Your task to perform on an android device: set an alarm Image 0: 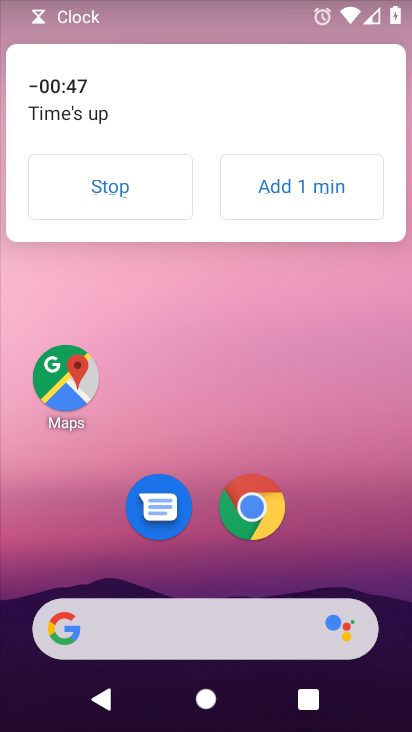
Step 0: drag from (227, 727) to (256, 0)
Your task to perform on an android device: set an alarm Image 1: 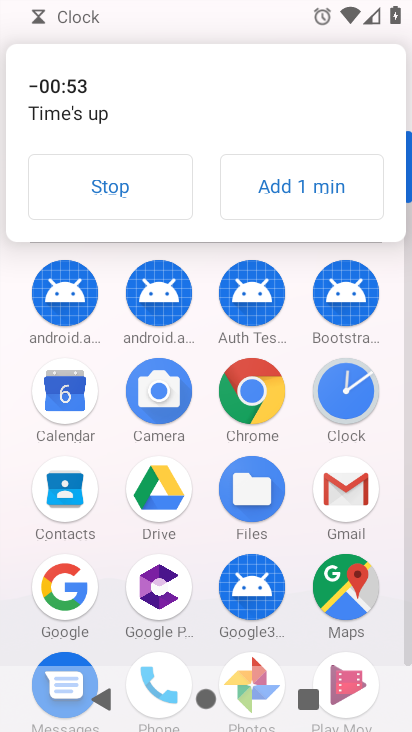
Step 1: click (352, 398)
Your task to perform on an android device: set an alarm Image 2: 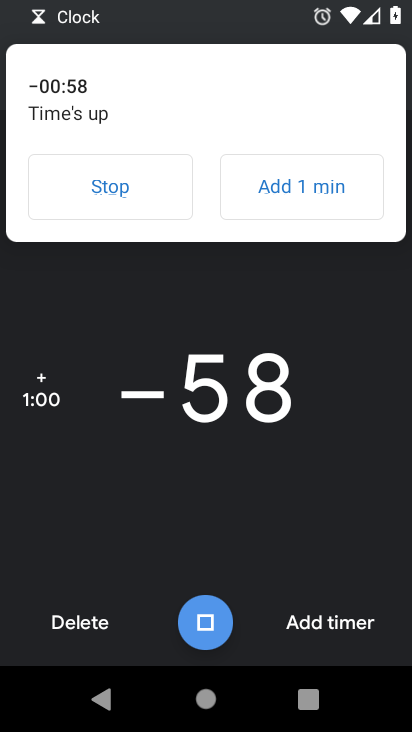
Step 2: click (118, 181)
Your task to perform on an android device: set an alarm Image 3: 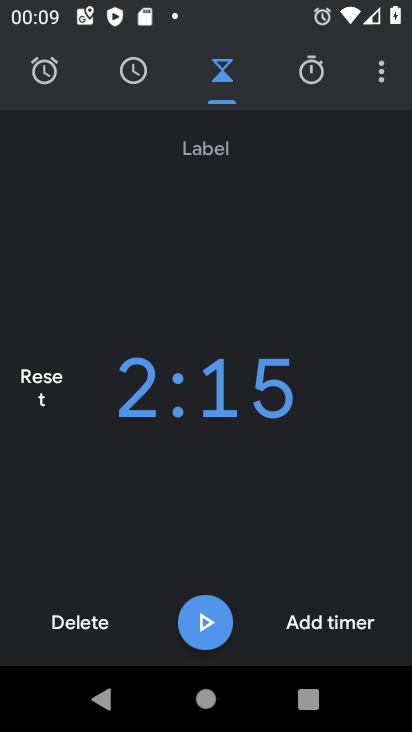
Step 3: click (43, 75)
Your task to perform on an android device: set an alarm Image 4: 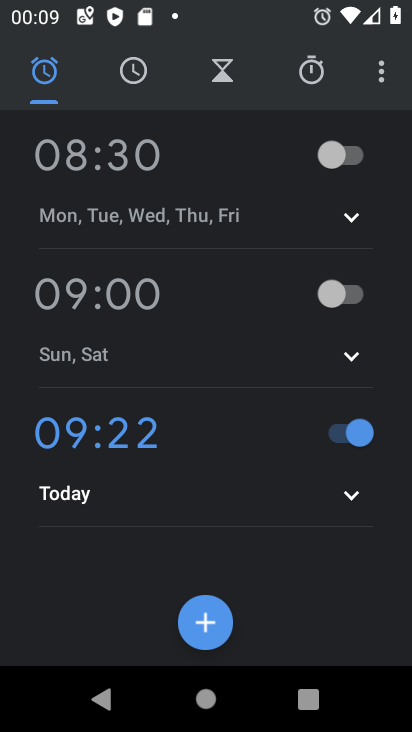
Step 4: click (210, 621)
Your task to perform on an android device: set an alarm Image 5: 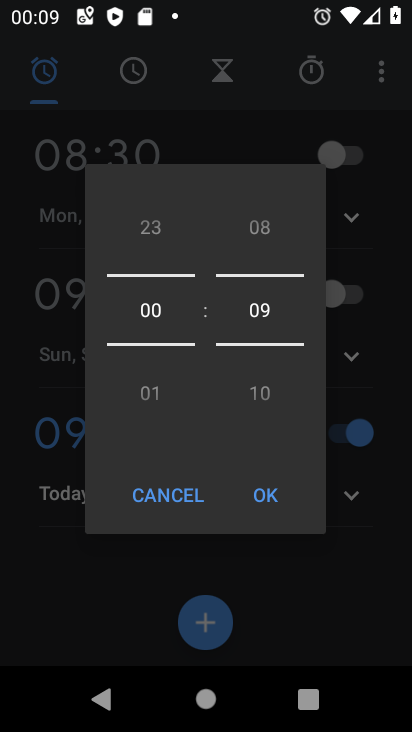
Step 5: click (147, 387)
Your task to perform on an android device: set an alarm Image 6: 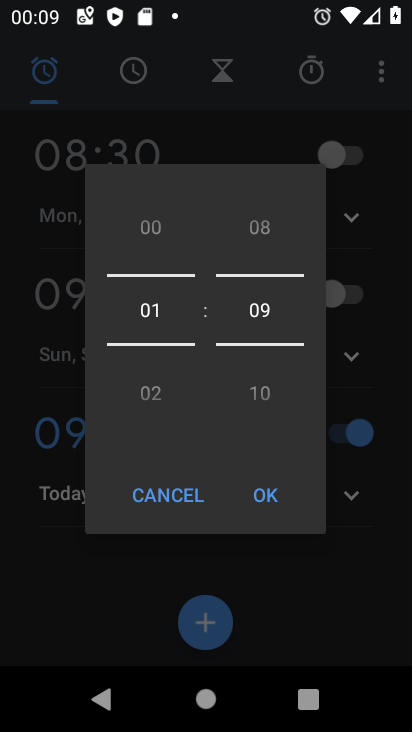
Step 6: click (244, 385)
Your task to perform on an android device: set an alarm Image 7: 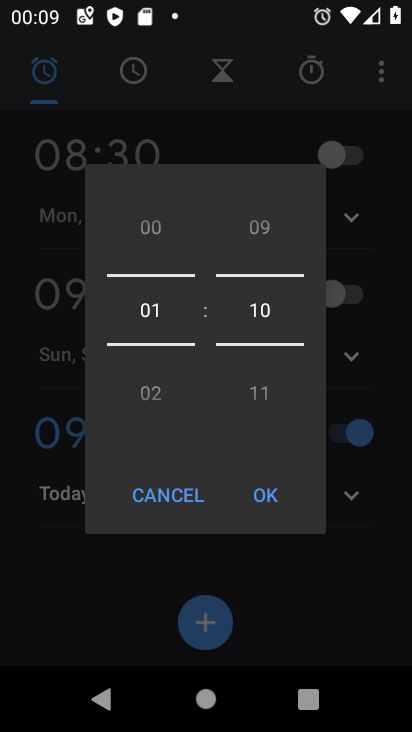
Step 7: click (273, 487)
Your task to perform on an android device: set an alarm Image 8: 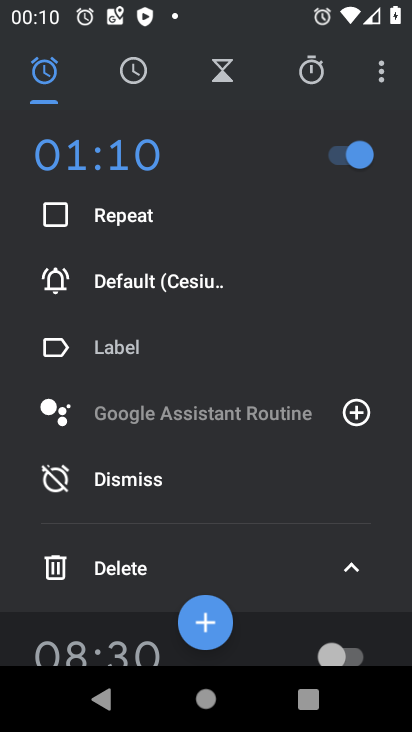
Step 8: task complete